Your task to perform on an android device: toggle priority inbox in the gmail app Image 0: 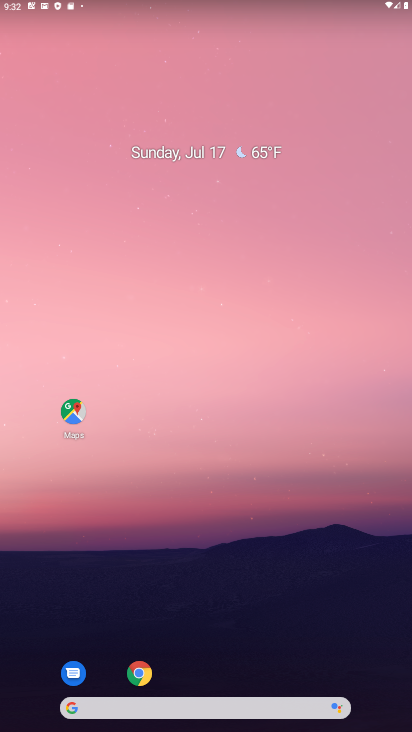
Step 0: drag from (230, 602) to (174, 73)
Your task to perform on an android device: toggle priority inbox in the gmail app Image 1: 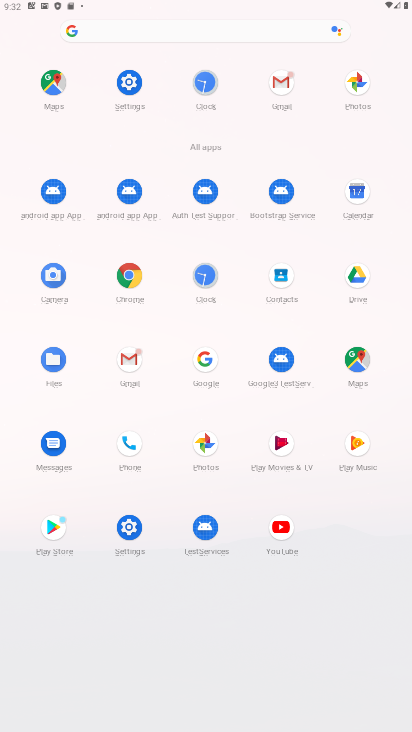
Step 1: click (278, 89)
Your task to perform on an android device: toggle priority inbox in the gmail app Image 2: 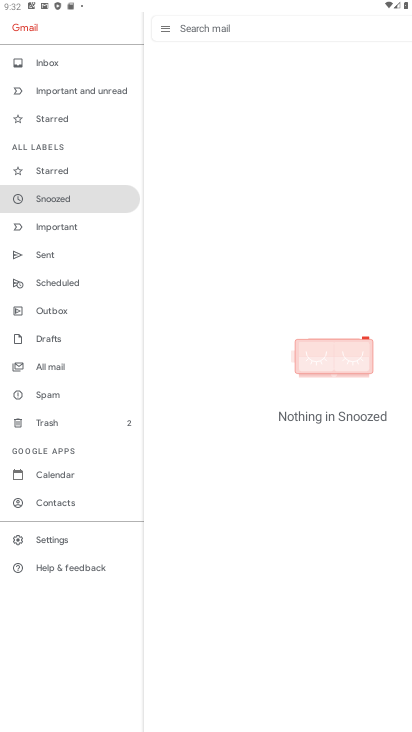
Step 2: click (57, 539)
Your task to perform on an android device: toggle priority inbox in the gmail app Image 3: 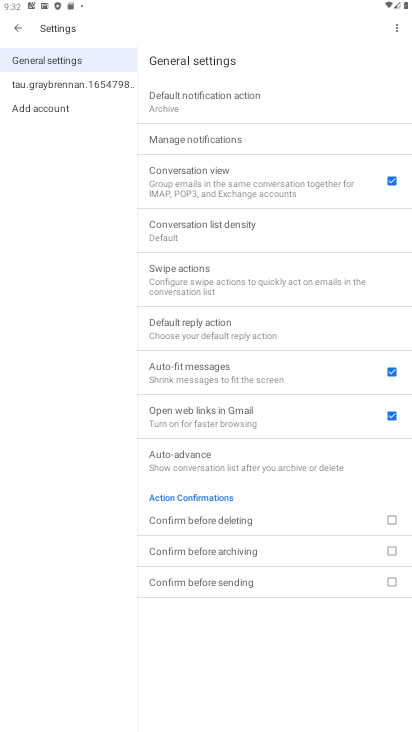
Step 3: click (46, 84)
Your task to perform on an android device: toggle priority inbox in the gmail app Image 4: 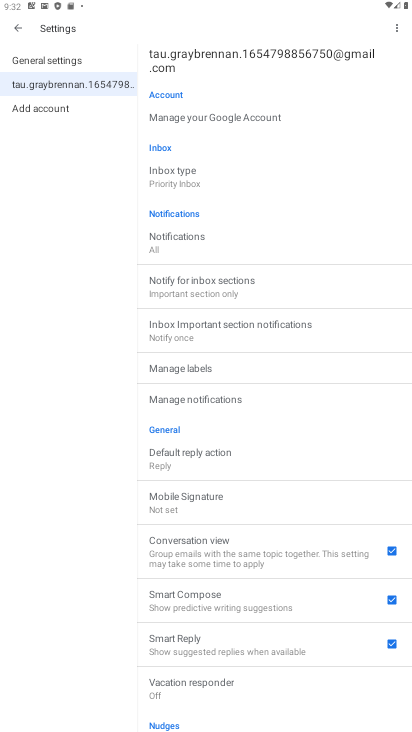
Step 4: click (179, 167)
Your task to perform on an android device: toggle priority inbox in the gmail app Image 5: 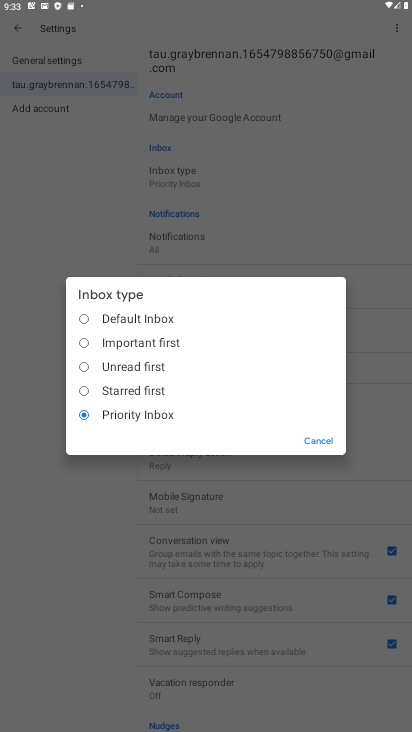
Step 5: click (81, 318)
Your task to perform on an android device: toggle priority inbox in the gmail app Image 6: 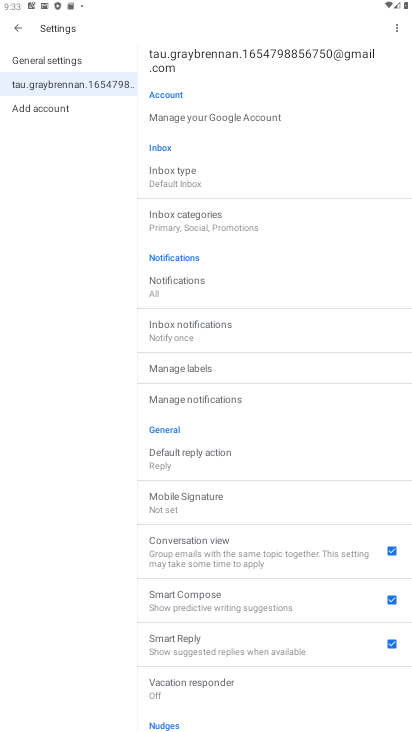
Step 6: task complete